Your task to perform on an android device: turn pop-ups on in chrome Image 0: 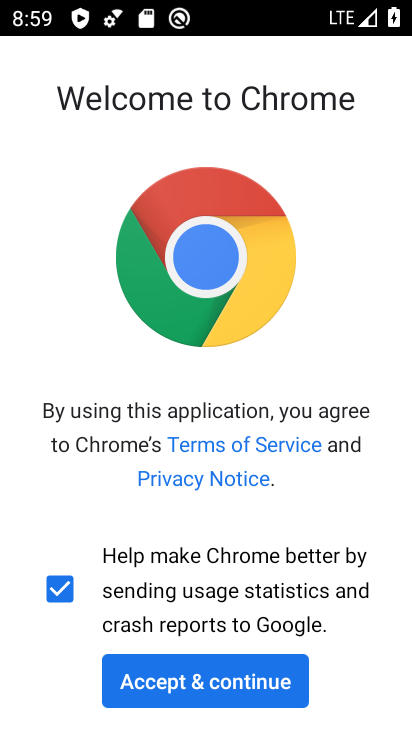
Step 0: click (268, 677)
Your task to perform on an android device: turn pop-ups on in chrome Image 1: 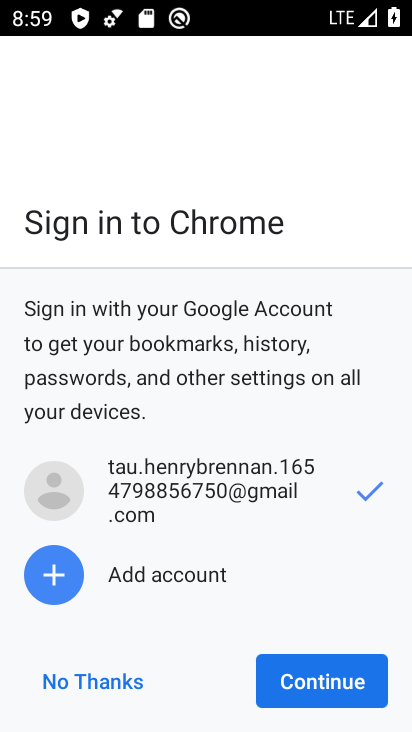
Step 1: click (291, 684)
Your task to perform on an android device: turn pop-ups on in chrome Image 2: 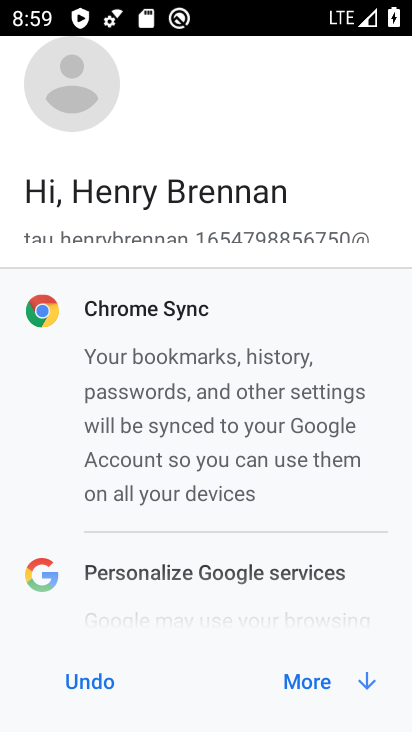
Step 2: click (291, 684)
Your task to perform on an android device: turn pop-ups on in chrome Image 3: 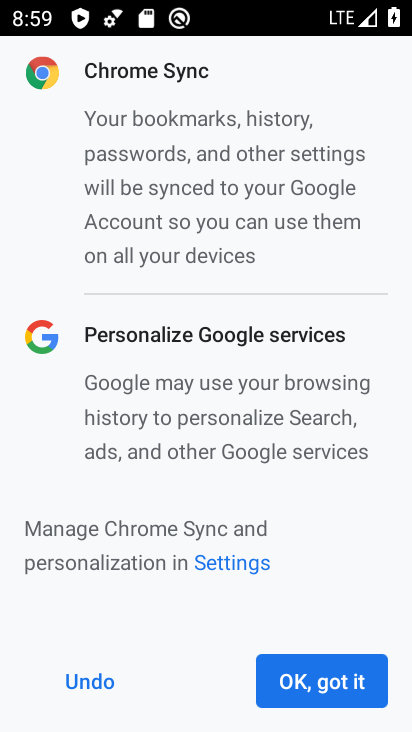
Step 3: click (291, 684)
Your task to perform on an android device: turn pop-ups on in chrome Image 4: 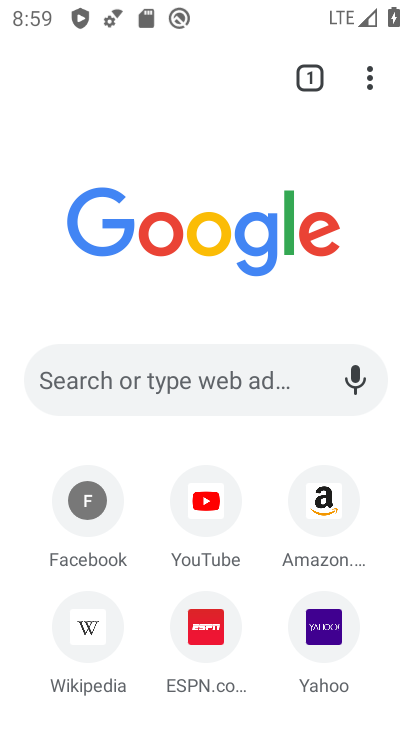
Step 4: click (374, 95)
Your task to perform on an android device: turn pop-ups on in chrome Image 5: 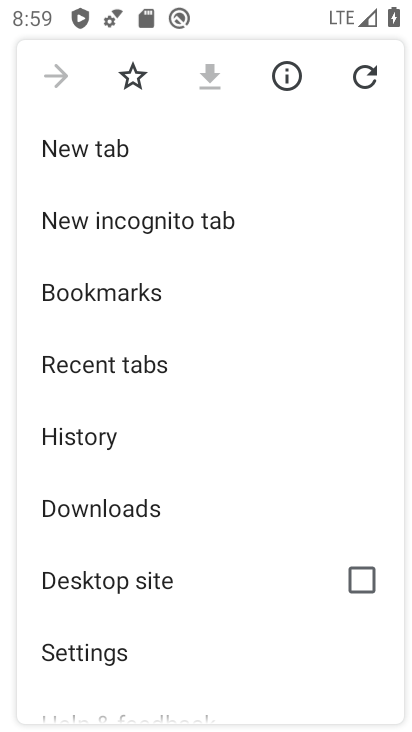
Step 5: drag from (149, 436) to (147, 322)
Your task to perform on an android device: turn pop-ups on in chrome Image 6: 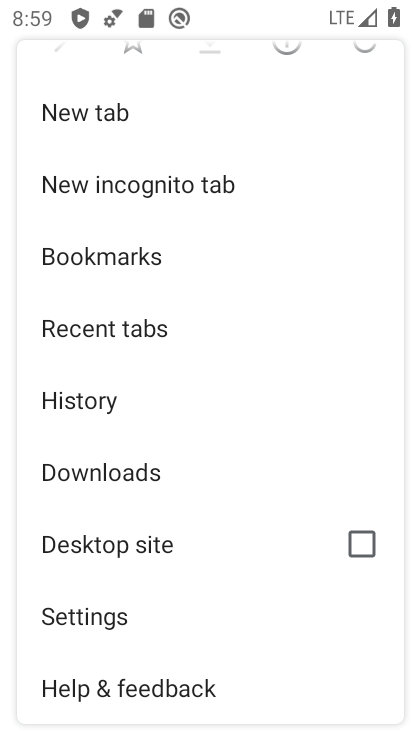
Step 6: click (122, 623)
Your task to perform on an android device: turn pop-ups on in chrome Image 7: 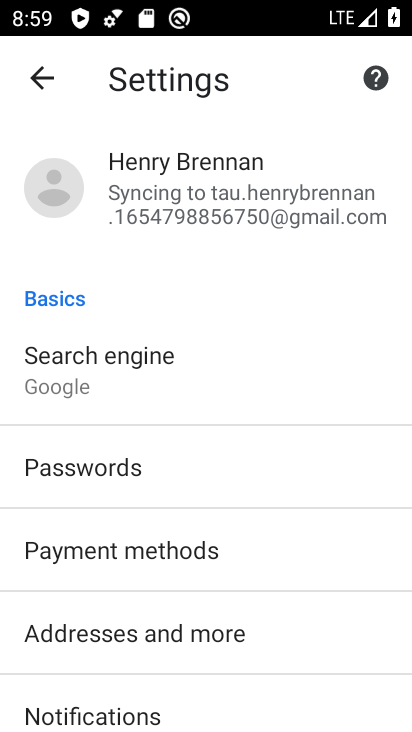
Step 7: drag from (196, 693) to (149, 334)
Your task to perform on an android device: turn pop-ups on in chrome Image 8: 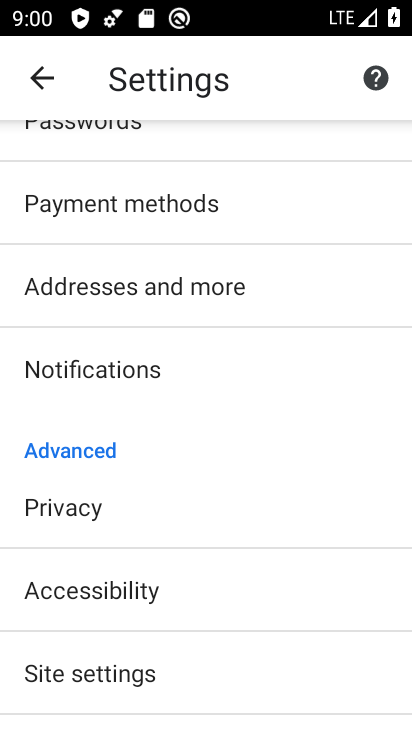
Step 8: drag from (182, 644) to (144, 396)
Your task to perform on an android device: turn pop-ups on in chrome Image 9: 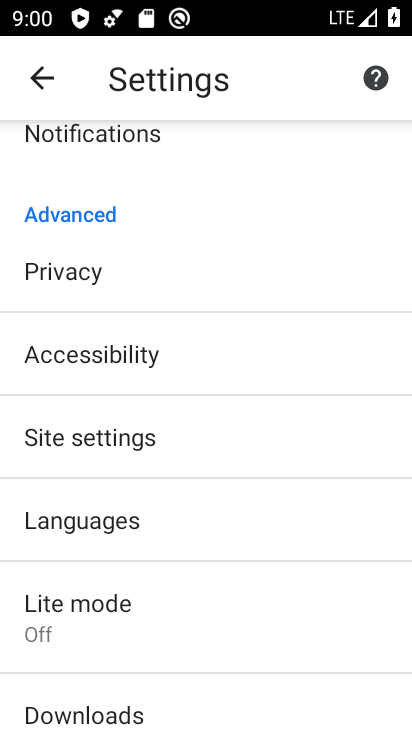
Step 9: click (144, 457)
Your task to perform on an android device: turn pop-ups on in chrome Image 10: 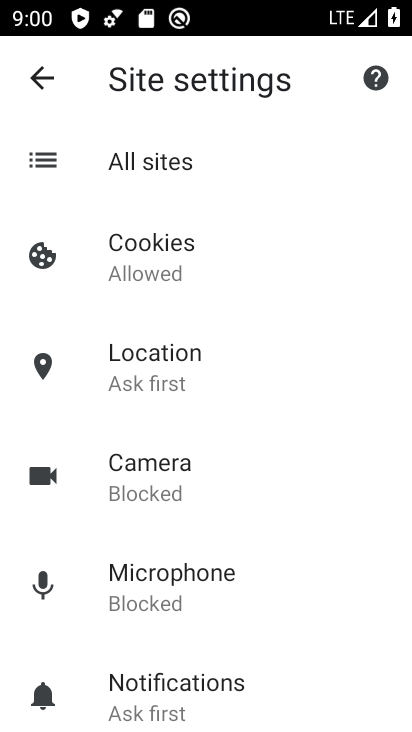
Step 10: drag from (217, 627) to (154, 337)
Your task to perform on an android device: turn pop-ups on in chrome Image 11: 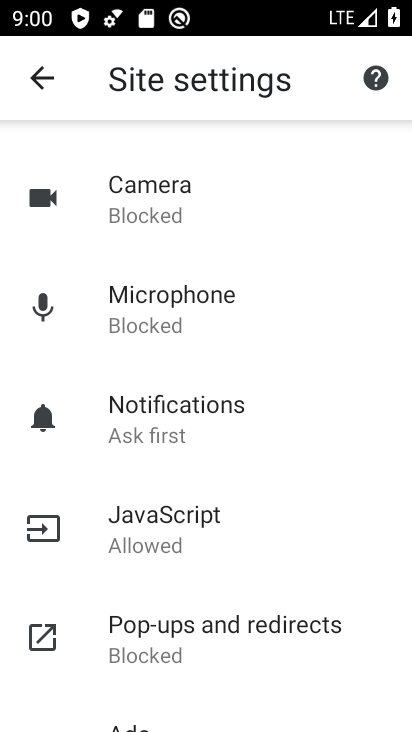
Step 11: drag from (202, 570) to (174, 291)
Your task to perform on an android device: turn pop-ups on in chrome Image 12: 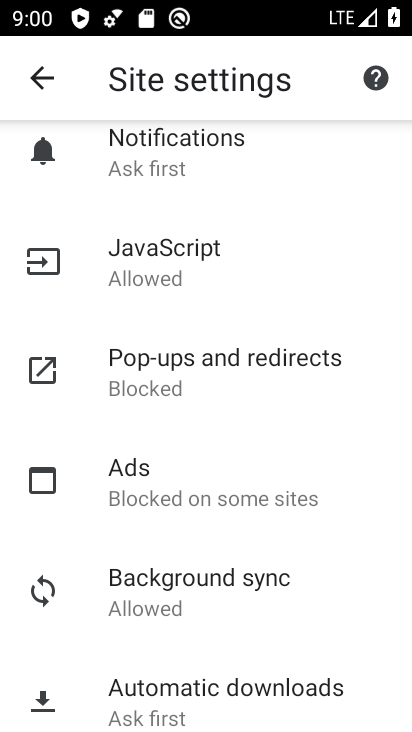
Step 12: click (192, 354)
Your task to perform on an android device: turn pop-ups on in chrome Image 13: 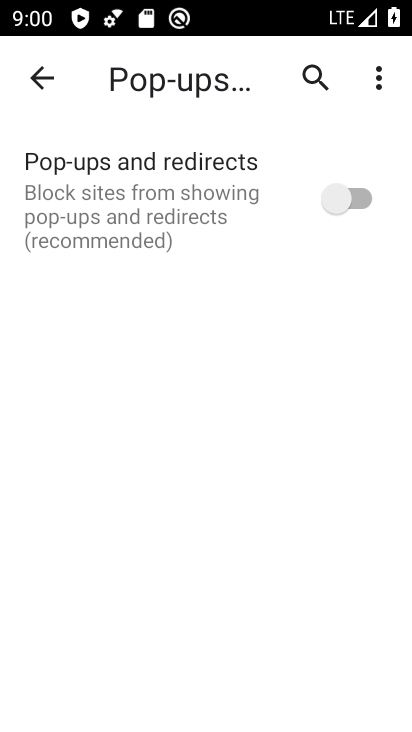
Step 13: click (341, 209)
Your task to perform on an android device: turn pop-ups on in chrome Image 14: 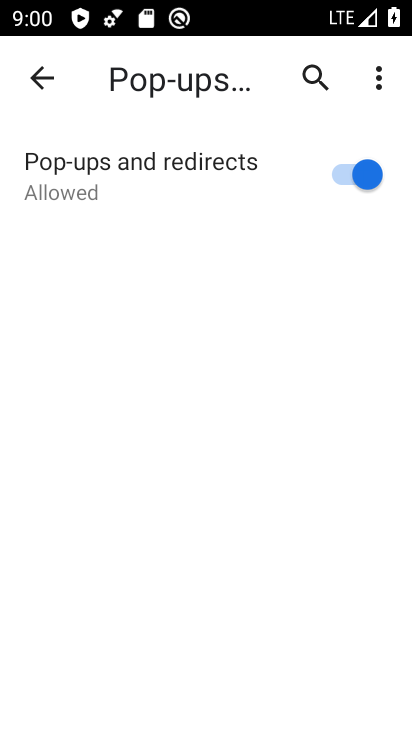
Step 14: task complete